Your task to perform on an android device: Open Youtube and go to the subscriptions tab Image 0: 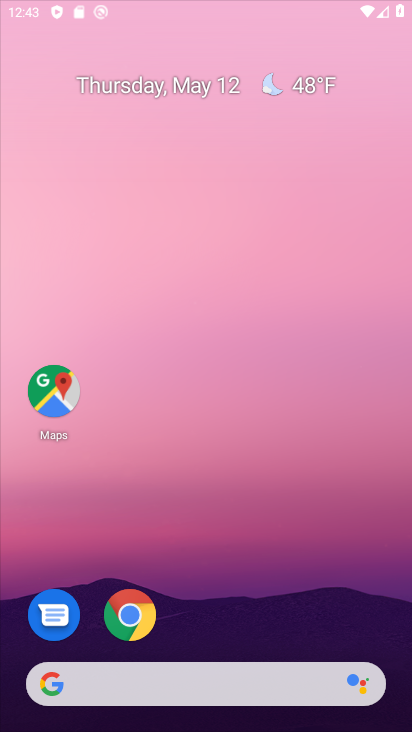
Step 0: click (314, 0)
Your task to perform on an android device: Open Youtube and go to the subscriptions tab Image 1: 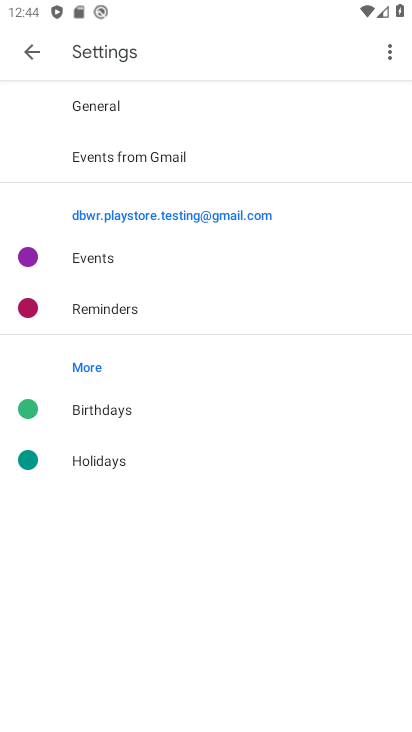
Step 1: press home button
Your task to perform on an android device: Open Youtube and go to the subscriptions tab Image 2: 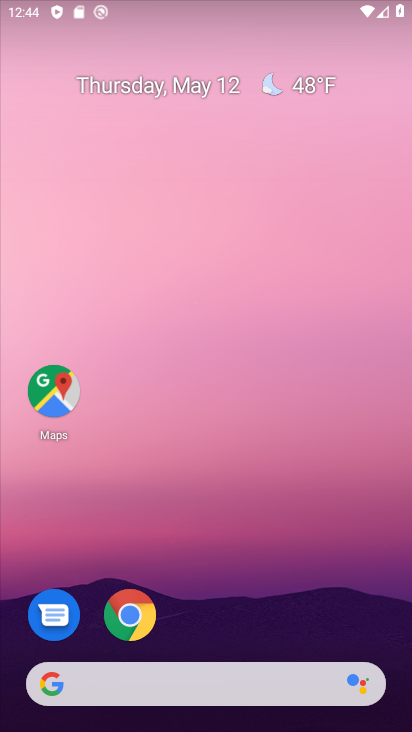
Step 2: drag from (198, 707) to (250, 98)
Your task to perform on an android device: Open Youtube and go to the subscriptions tab Image 3: 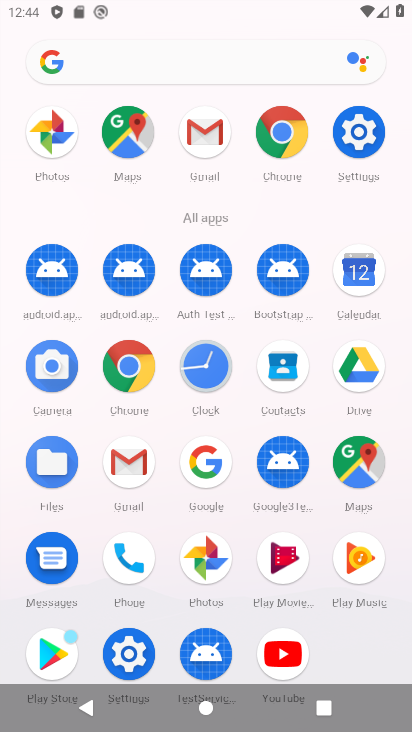
Step 3: click (302, 646)
Your task to perform on an android device: Open Youtube and go to the subscriptions tab Image 4: 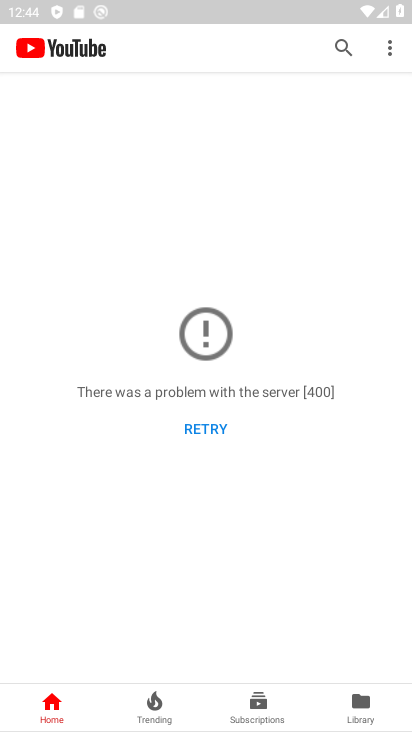
Step 4: click (247, 718)
Your task to perform on an android device: Open Youtube and go to the subscriptions tab Image 5: 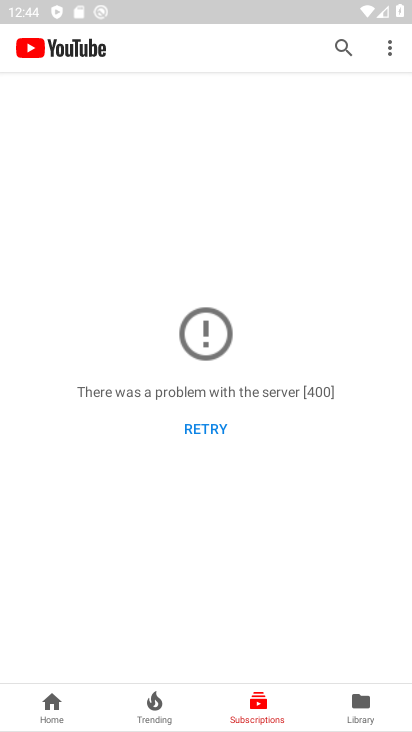
Step 5: task complete